Your task to perform on an android device: Open the phone app and click the voicemail tab. Image 0: 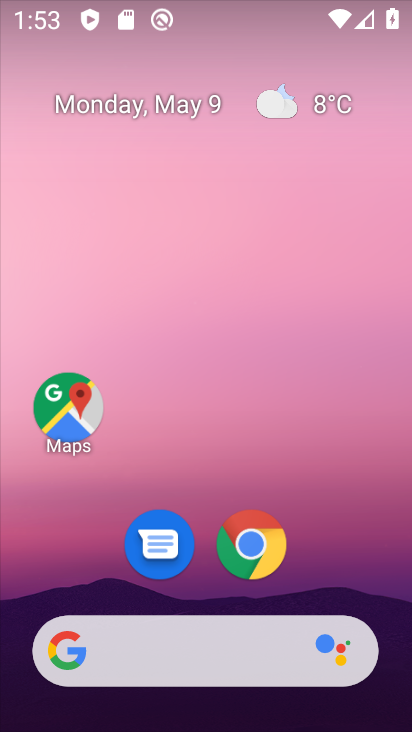
Step 0: drag from (137, 612) to (212, 185)
Your task to perform on an android device: Open the phone app and click the voicemail tab. Image 1: 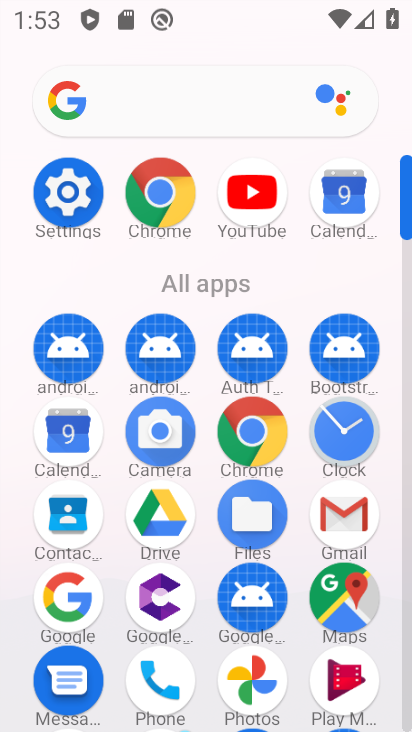
Step 1: drag from (194, 606) to (223, 444)
Your task to perform on an android device: Open the phone app and click the voicemail tab. Image 2: 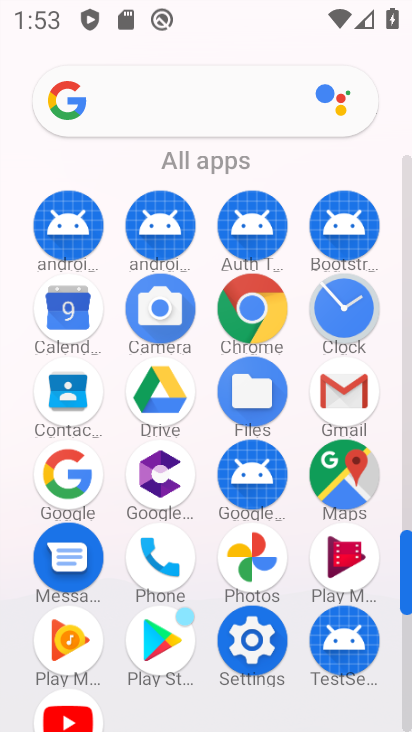
Step 2: click (167, 559)
Your task to perform on an android device: Open the phone app and click the voicemail tab. Image 3: 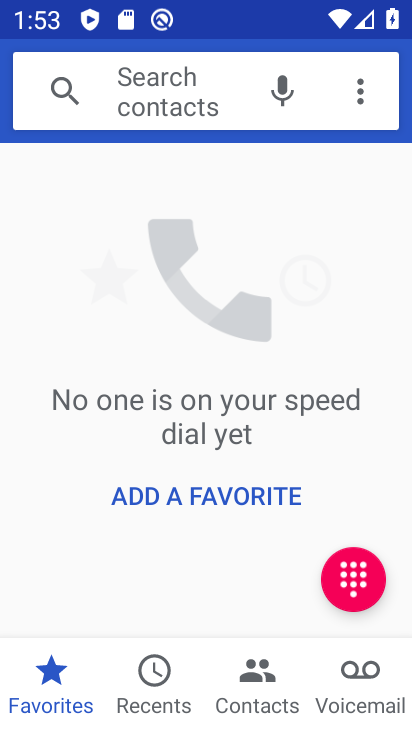
Step 3: click (375, 700)
Your task to perform on an android device: Open the phone app and click the voicemail tab. Image 4: 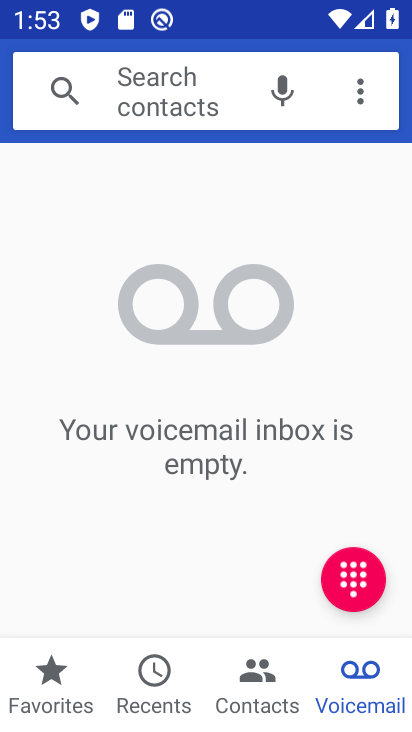
Step 4: task complete